Your task to perform on an android device: Open accessibility settings Image 0: 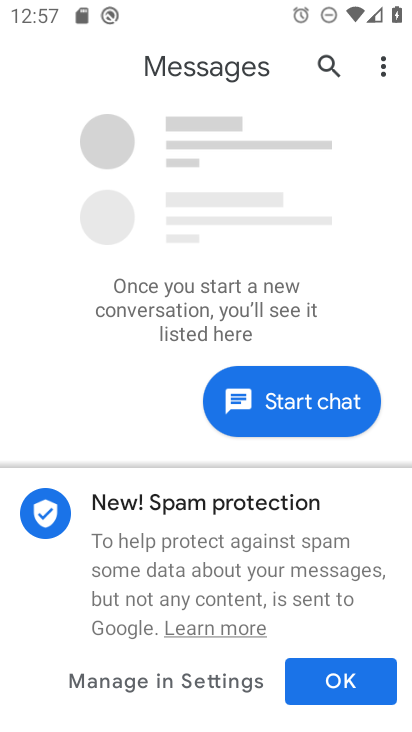
Step 0: press home button
Your task to perform on an android device: Open accessibility settings Image 1: 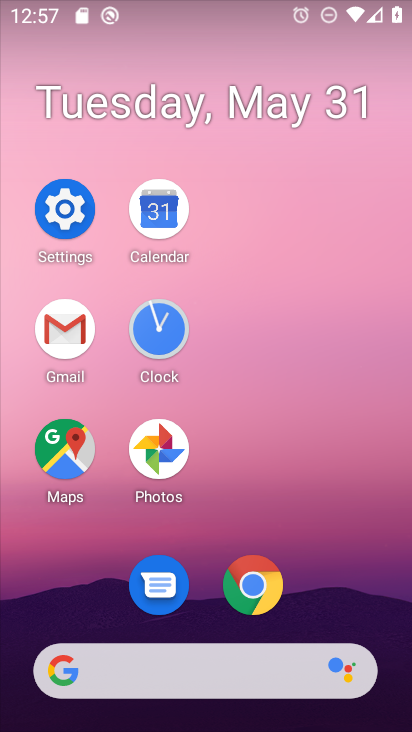
Step 1: click (92, 223)
Your task to perform on an android device: Open accessibility settings Image 2: 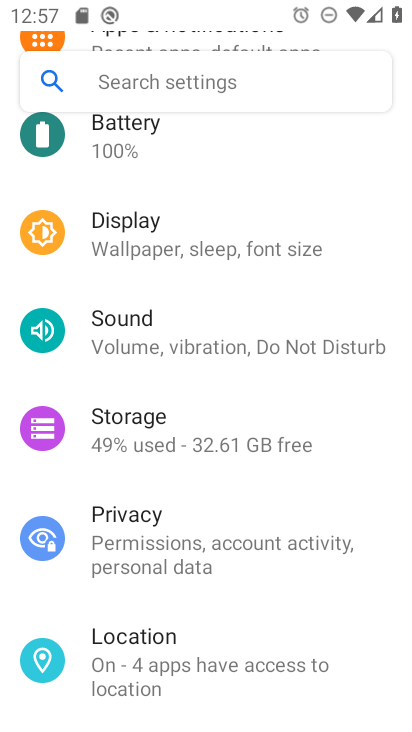
Step 2: drag from (242, 674) to (290, 309)
Your task to perform on an android device: Open accessibility settings Image 3: 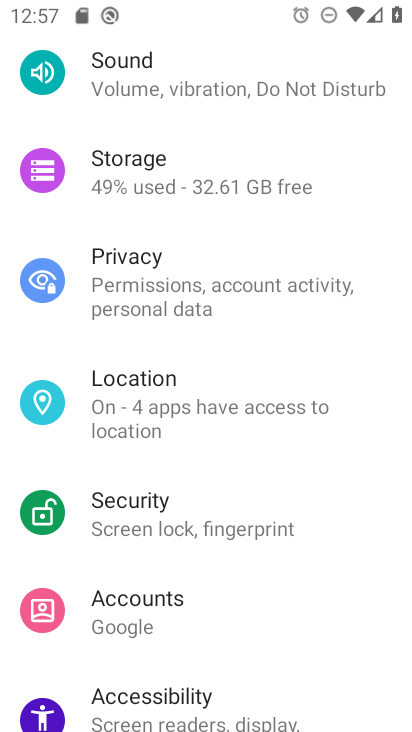
Step 3: click (258, 691)
Your task to perform on an android device: Open accessibility settings Image 4: 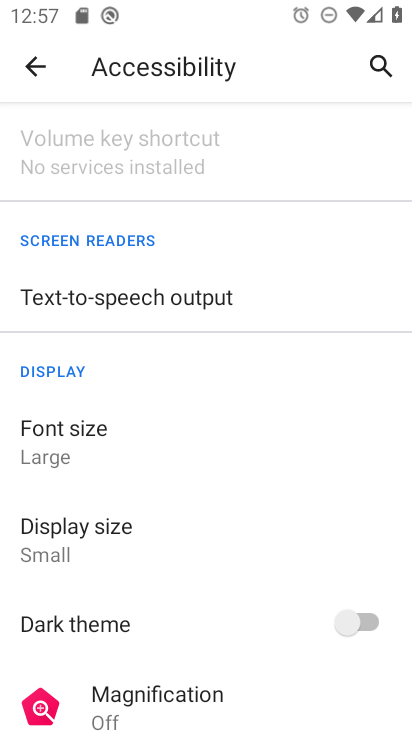
Step 4: task complete